Your task to perform on an android device: check storage Image 0: 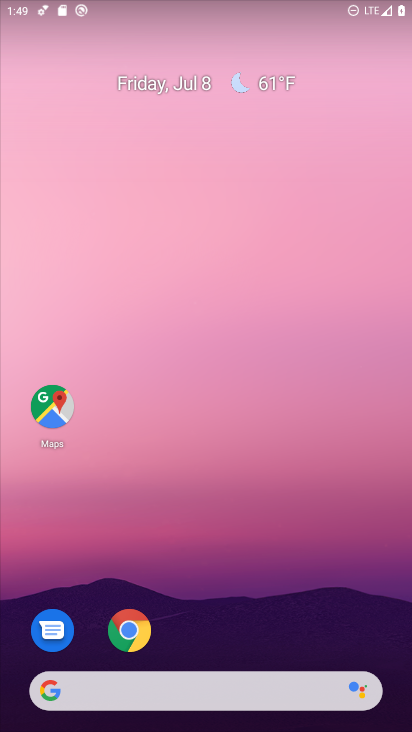
Step 0: drag from (388, 649) to (342, 142)
Your task to perform on an android device: check storage Image 1: 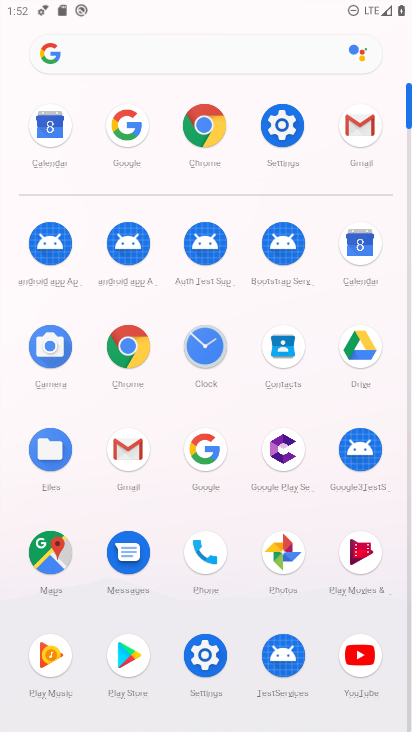
Step 1: click (205, 680)
Your task to perform on an android device: check storage Image 2: 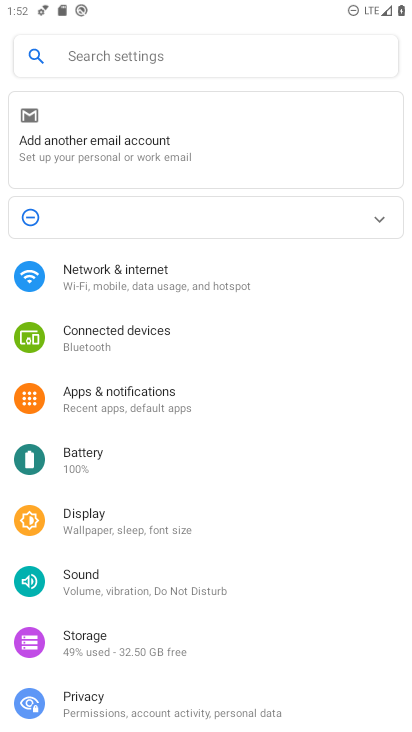
Step 2: click (122, 644)
Your task to perform on an android device: check storage Image 3: 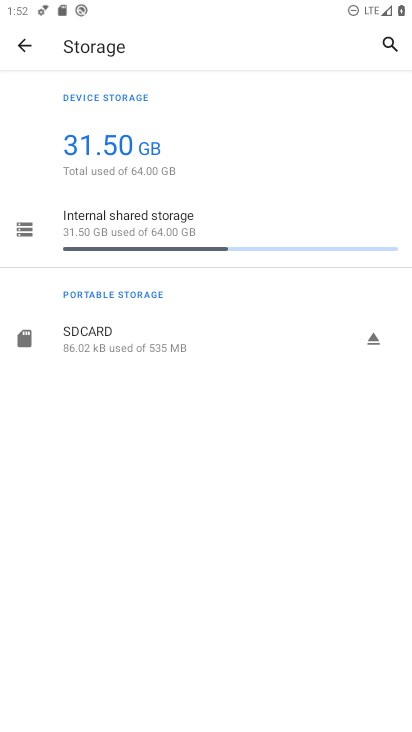
Step 3: click (119, 217)
Your task to perform on an android device: check storage Image 4: 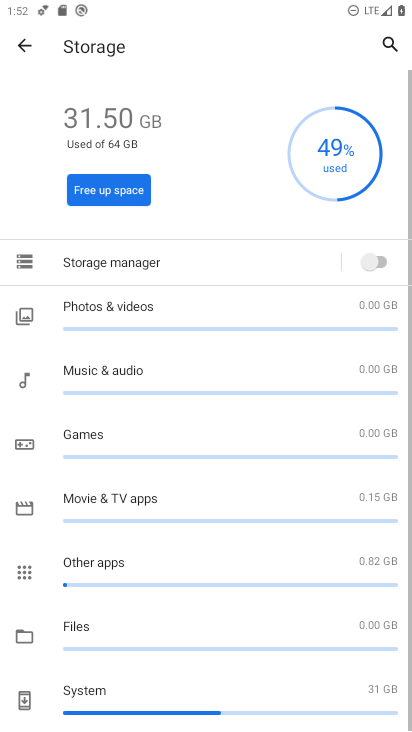
Step 4: task complete